Your task to perform on an android device: Open calendar and show me the first week of next month Image 0: 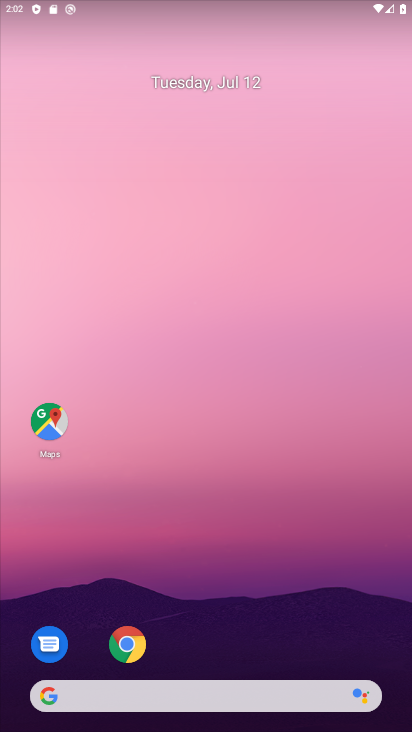
Step 0: drag from (323, 627) to (327, 73)
Your task to perform on an android device: Open calendar and show me the first week of next month Image 1: 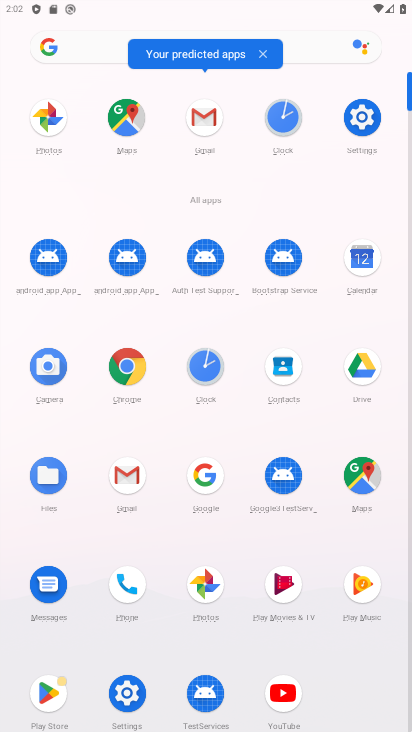
Step 1: click (377, 261)
Your task to perform on an android device: Open calendar and show me the first week of next month Image 2: 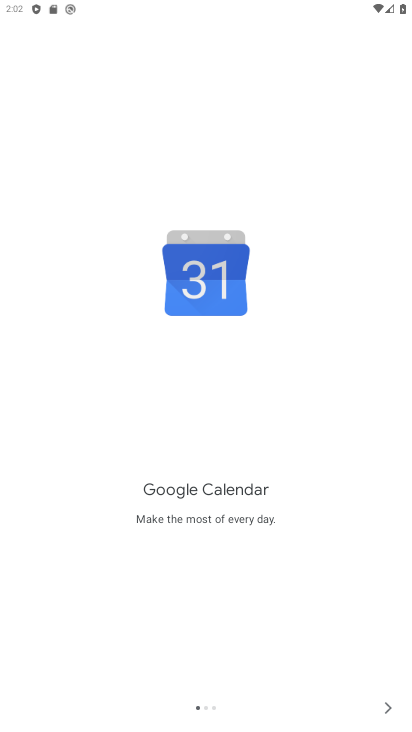
Step 2: click (381, 707)
Your task to perform on an android device: Open calendar and show me the first week of next month Image 3: 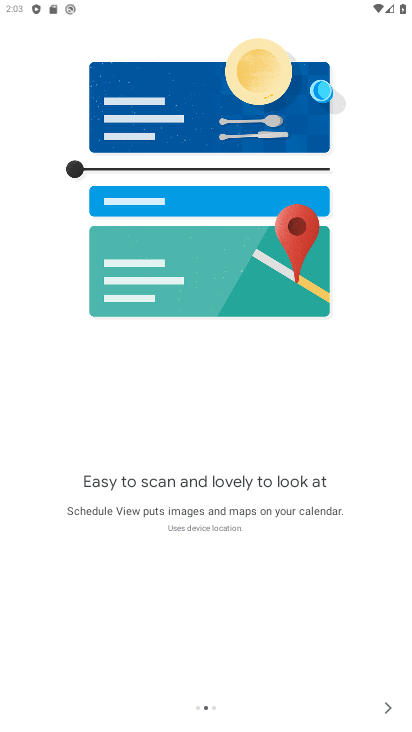
Step 3: click (391, 712)
Your task to perform on an android device: Open calendar and show me the first week of next month Image 4: 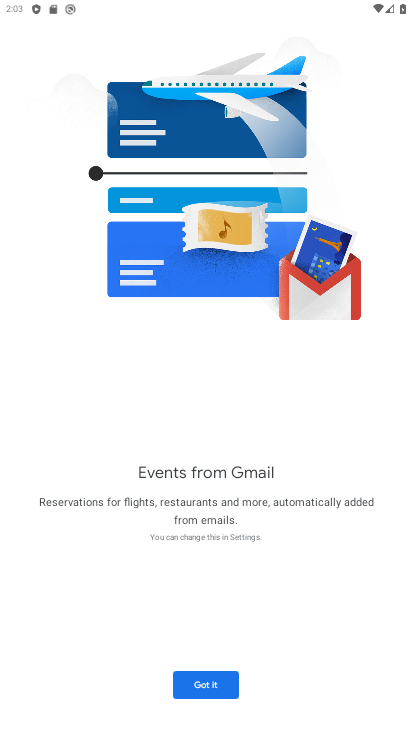
Step 4: click (224, 688)
Your task to perform on an android device: Open calendar and show me the first week of next month Image 5: 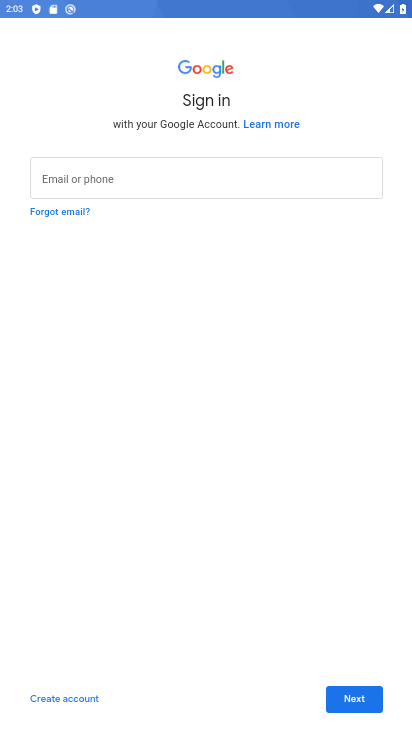
Step 5: task complete